Your task to perform on an android device: change notification settings in the gmail app Image 0: 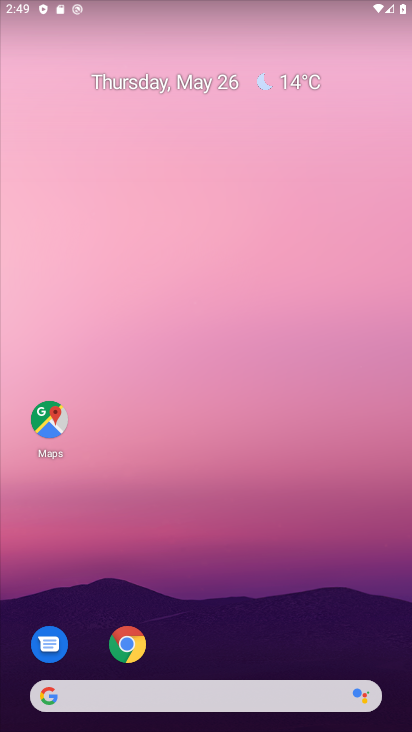
Step 0: drag from (330, 559) to (287, 177)
Your task to perform on an android device: change notification settings in the gmail app Image 1: 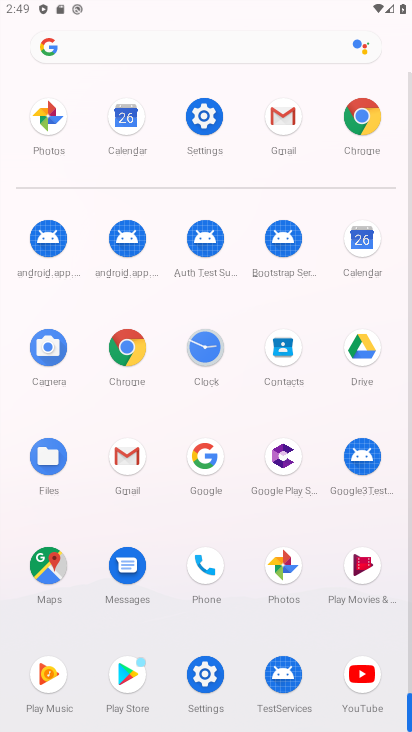
Step 1: click (141, 451)
Your task to perform on an android device: change notification settings in the gmail app Image 2: 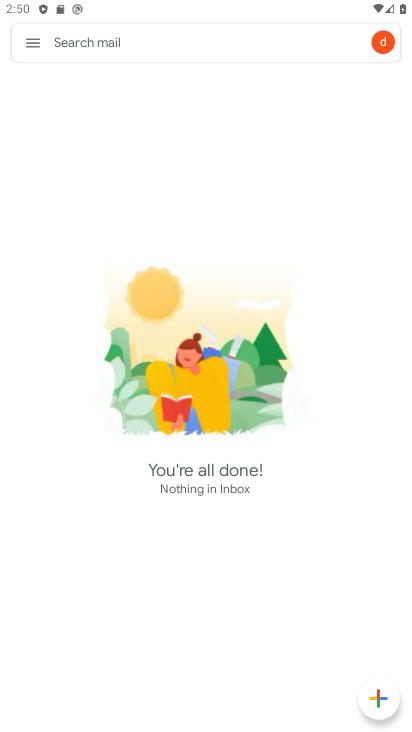
Step 2: click (30, 33)
Your task to perform on an android device: change notification settings in the gmail app Image 3: 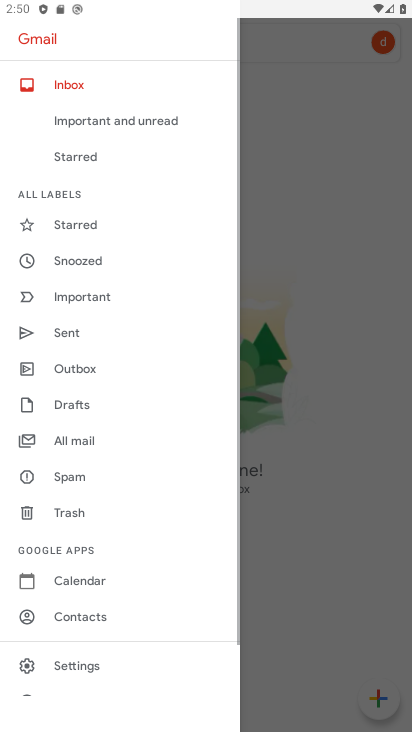
Step 3: click (83, 666)
Your task to perform on an android device: change notification settings in the gmail app Image 4: 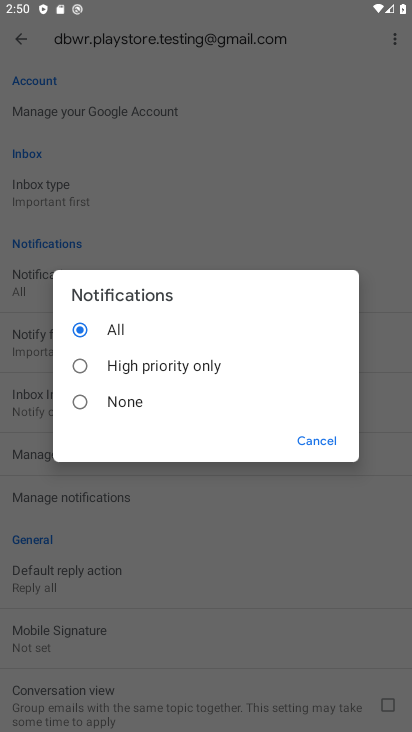
Step 4: click (334, 437)
Your task to perform on an android device: change notification settings in the gmail app Image 5: 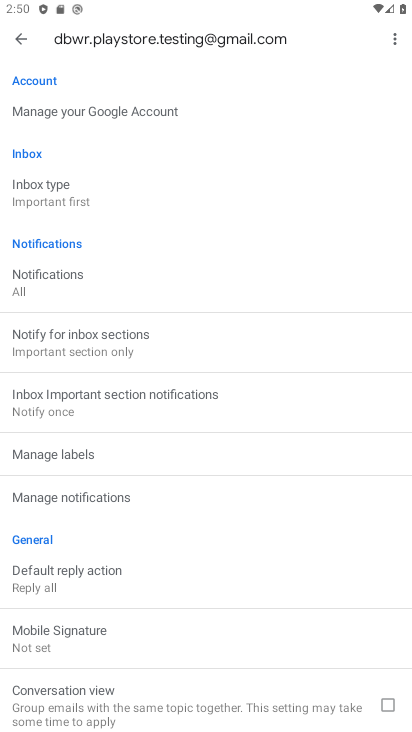
Step 5: click (101, 304)
Your task to perform on an android device: change notification settings in the gmail app Image 6: 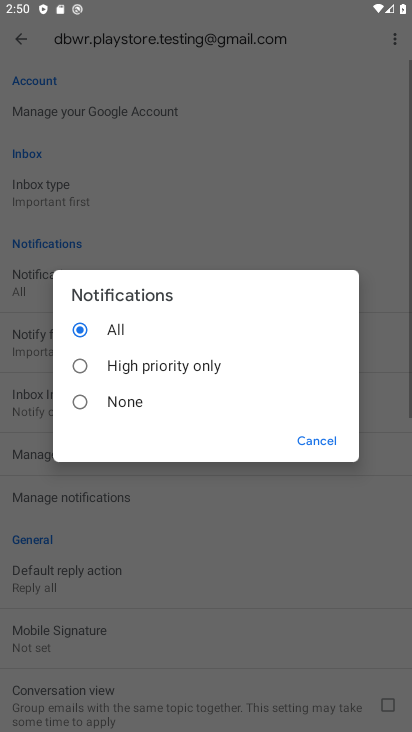
Step 6: click (107, 349)
Your task to perform on an android device: change notification settings in the gmail app Image 7: 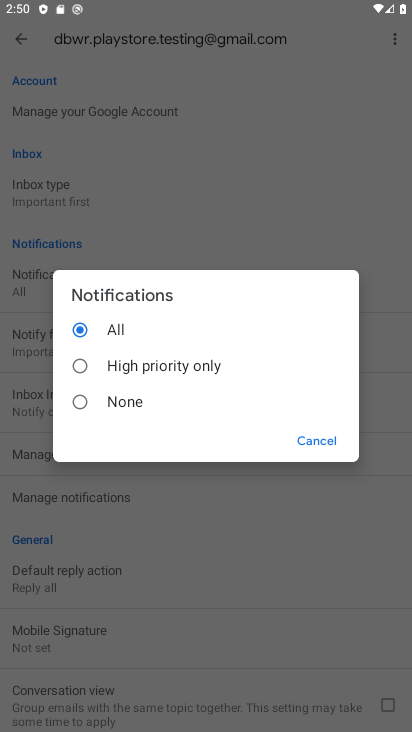
Step 7: click (140, 362)
Your task to perform on an android device: change notification settings in the gmail app Image 8: 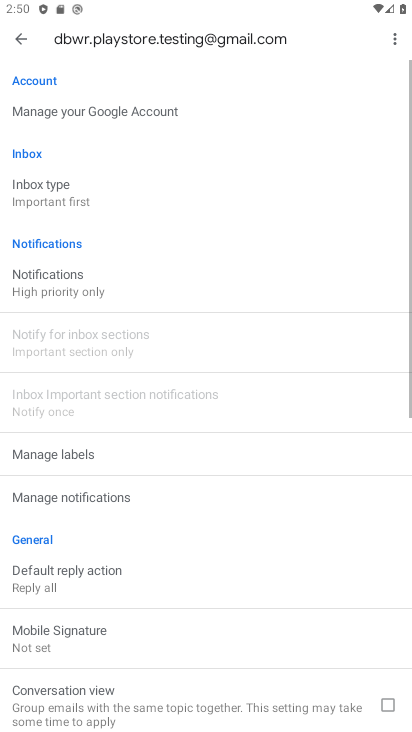
Step 8: task complete